Your task to perform on an android device: Open the map Image 0: 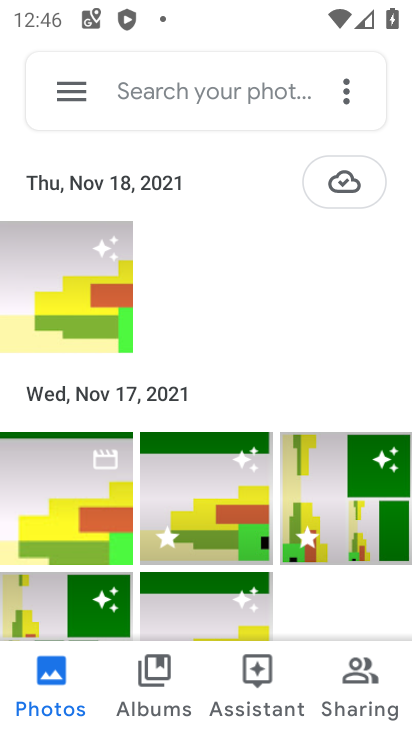
Step 0: press home button
Your task to perform on an android device: Open the map Image 1: 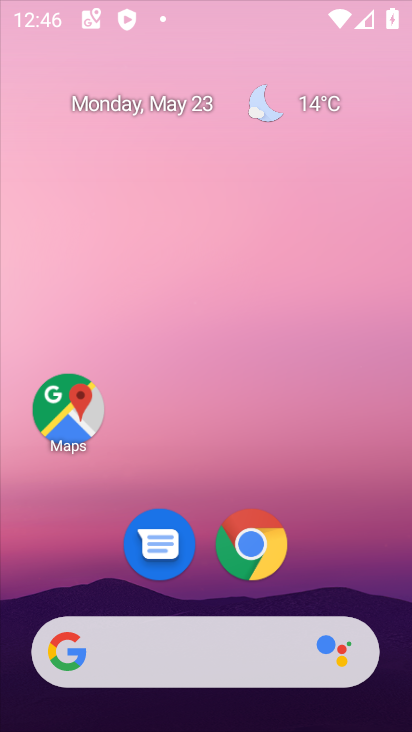
Step 1: click (85, 422)
Your task to perform on an android device: Open the map Image 2: 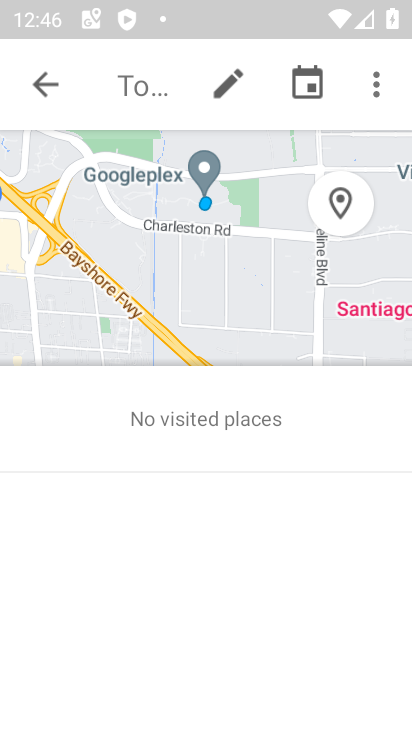
Step 2: task complete